Your task to perform on an android device: Go to ESPN.com Image 0: 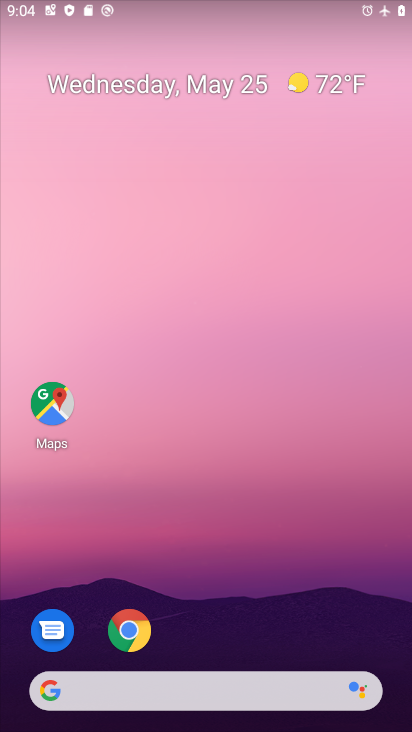
Step 0: click (123, 637)
Your task to perform on an android device: Go to ESPN.com Image 1: 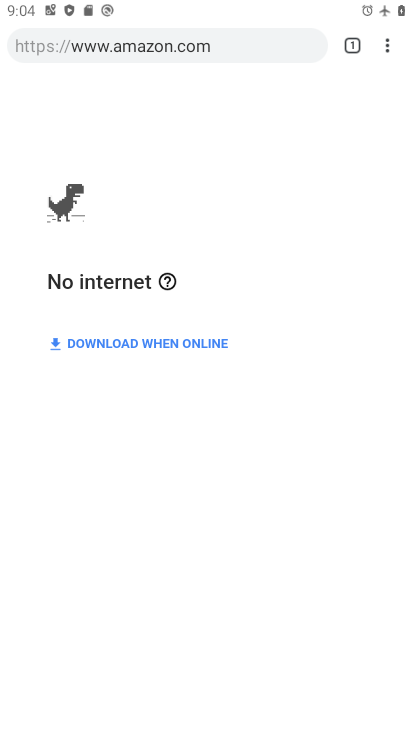
Step 1: click (356, 35)
Your task to perform on an android device: Go to ESPN.com Image 2: 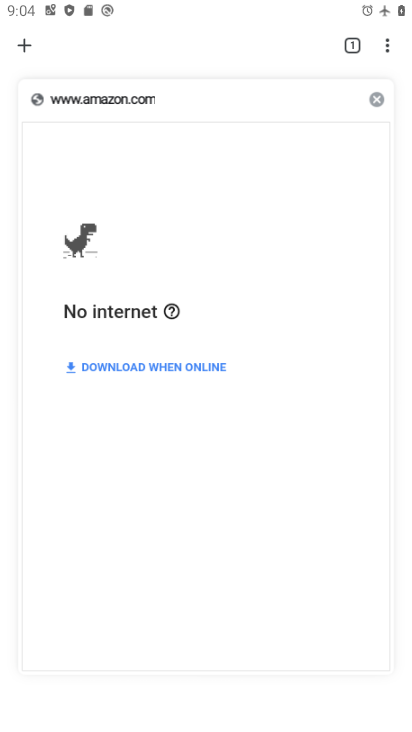
Step 2: click (29, 48)
Your task to perform on an android device: Go to ESPN.com Image 3: 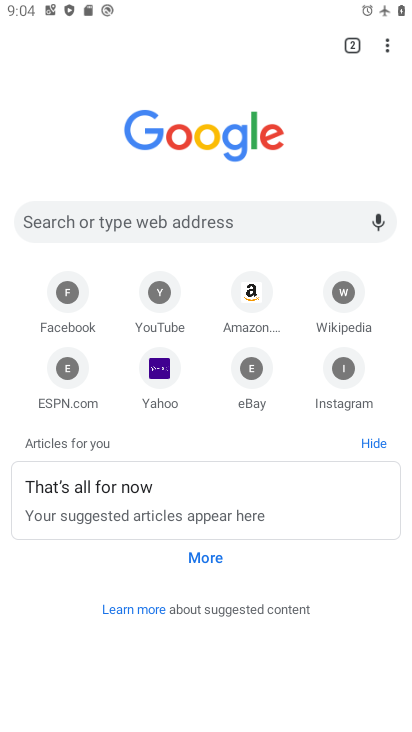
Step 3: click (52, 375)
Your task to perform on an android device: Go to ESPN.com Image 4: 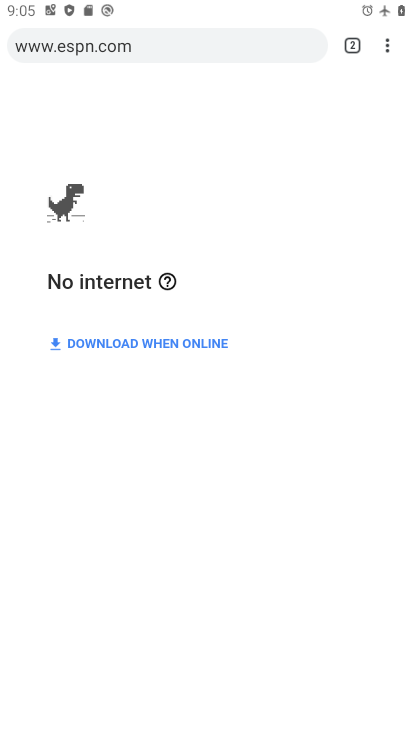
Step 4: task complete